Your task to perform on an android device: find which apps use the phone's location Image 0: 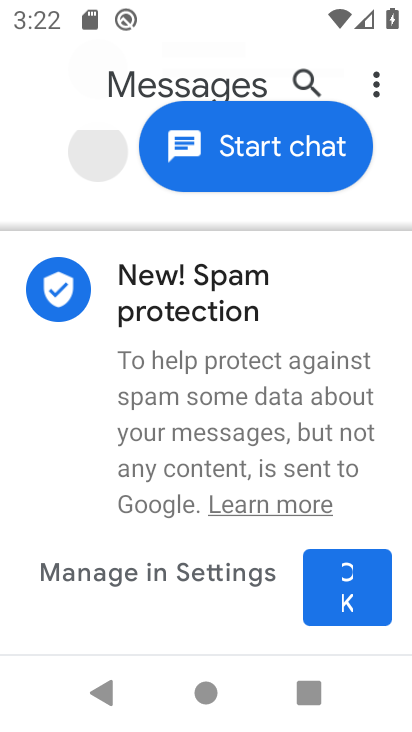
Step 0: press home button
Your task to perform on an android device: find which apps use the phone's location Image 1: 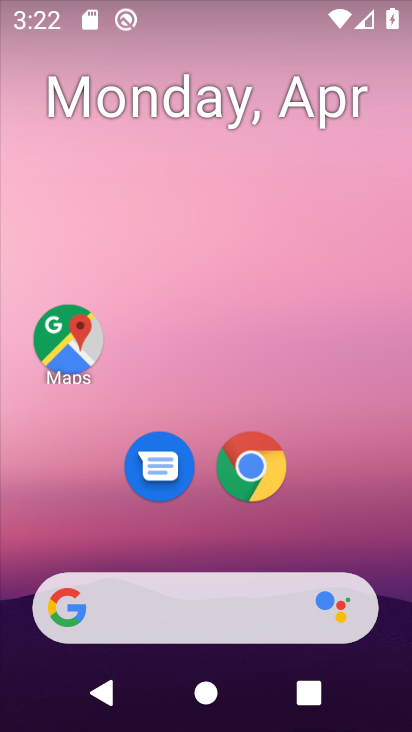
Step 1: drag from (223, 413) to (252, 210)
Your task to perform on an android device: find which apps use the phone's location Image 2: 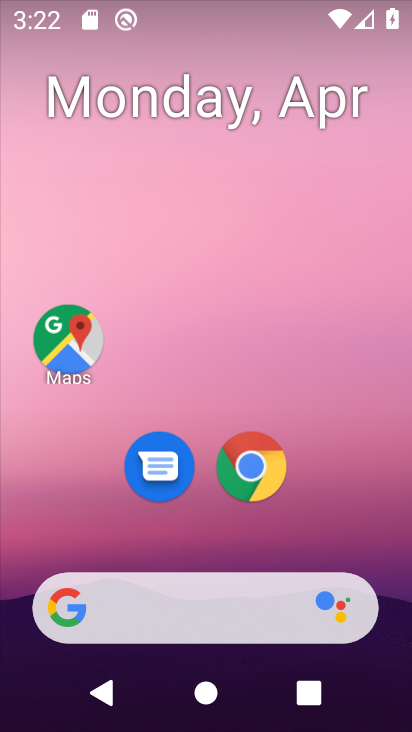
Step 2: drag from (212, 539) to (263, 116)
Your task to perform on an android device: find which apps use the phone's location Image 3: 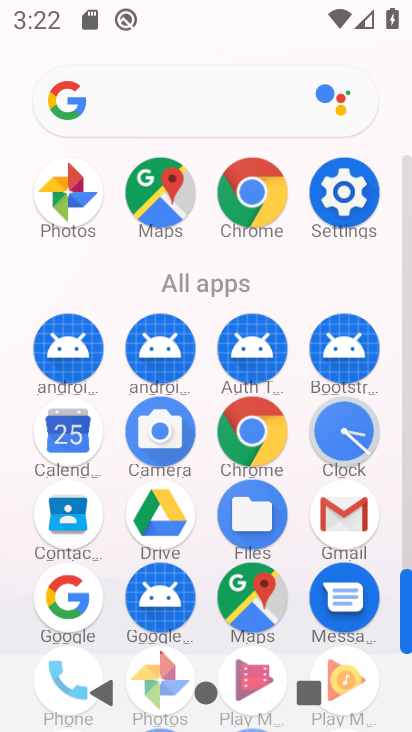
Step 3: click (338, 220)
Your task to perform on an android device: find which apps use the phone's location Image 4: 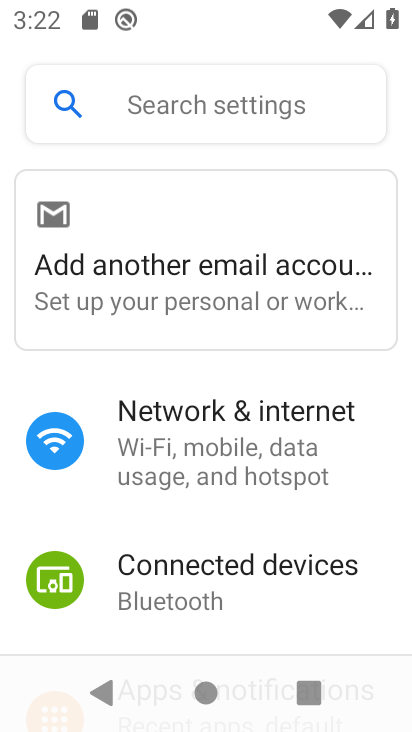
Step 4: drag from (269, 588) to (228, 199)
Your task to perform on an android device: find which apps use the phone's location Image 5: 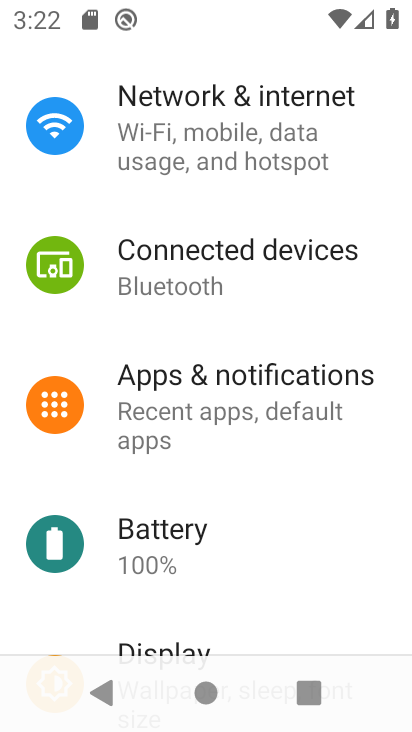
Step 5: drag from (235, 504) to (255, 235)
Your task to perform on an android device: find which apps use the phone's location Image 6: 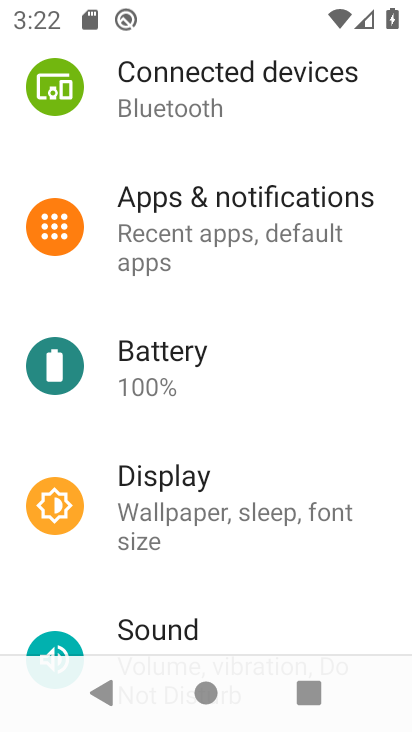
Step 6: drag from (241, 477) to (235, 205)
Your task to perform on an android device: find which apps use the phone's location Image 7: 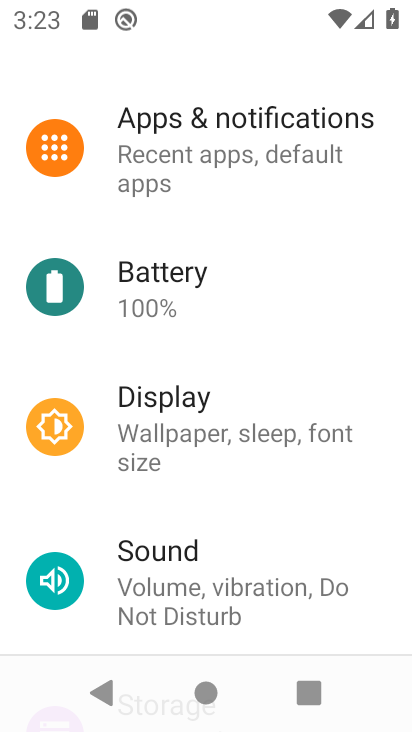
Step 7: drag from (225, 543) to (200, 255)
Your task to perform on an android device: find which apps use the phone's location Image 8: 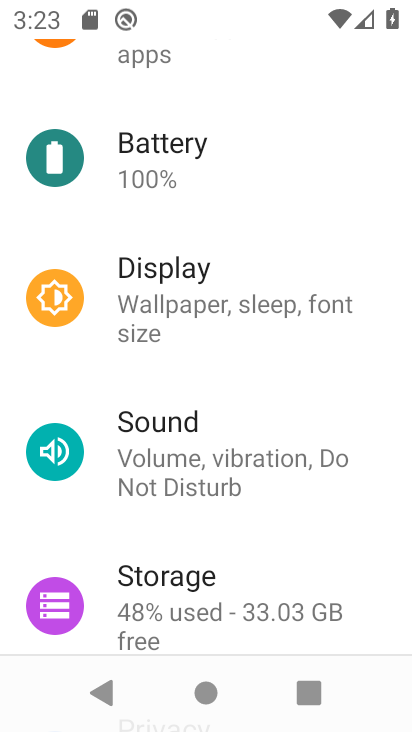
Step 8: drag from (192, 405) to (186, 202)
Your task to perform on an android device: find which apps use the phone's location Image 9: 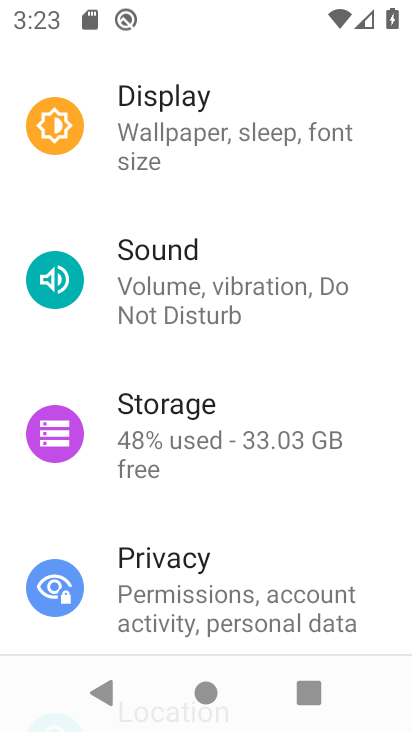
Step 9: drag from (209, 519) to (204, 258)
Your task to perform on an android device: find which apps use the phone's location Image 10: 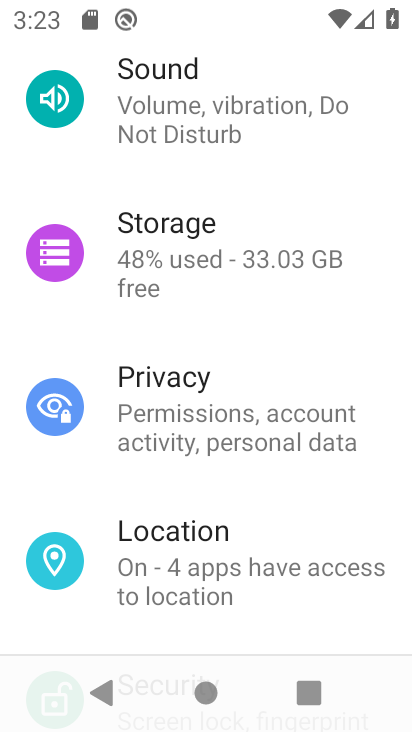
Step 10: click (231, 544)
Your task to perform on an android device: find which apps use the phone's location Image 11: 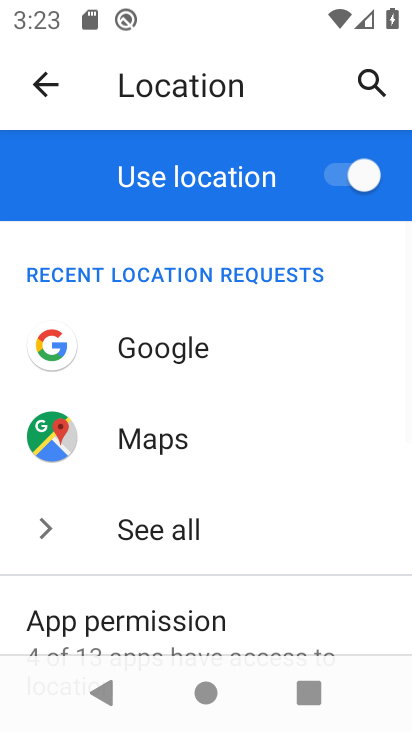
Step 11: drag from (214, 565) to (211, 362)
Your task to perform on an android device: find which apps use the phone's location Image 12: 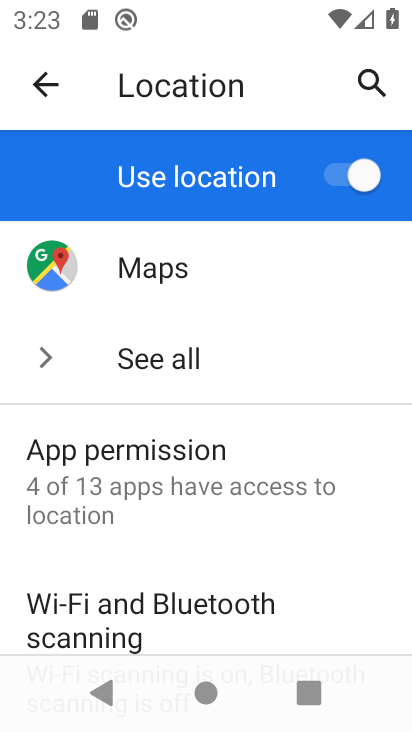
Step 12: click (200, 461)
Your task to perform on an android device: find which apps use the phone's location Image 13: 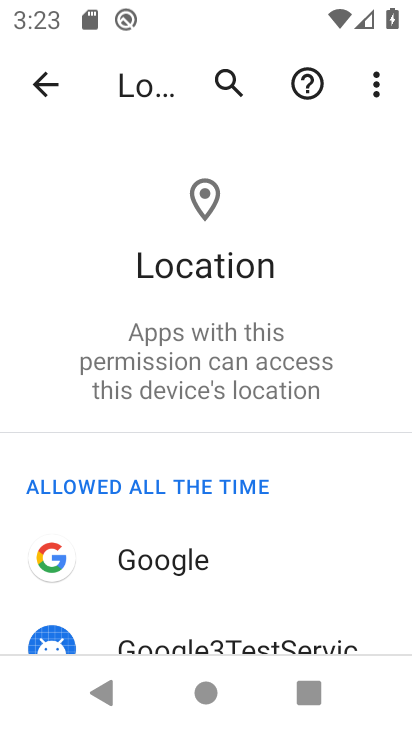
Step 13: task complete